Your task to perform on an android device: Open Wikipedia Image 0: 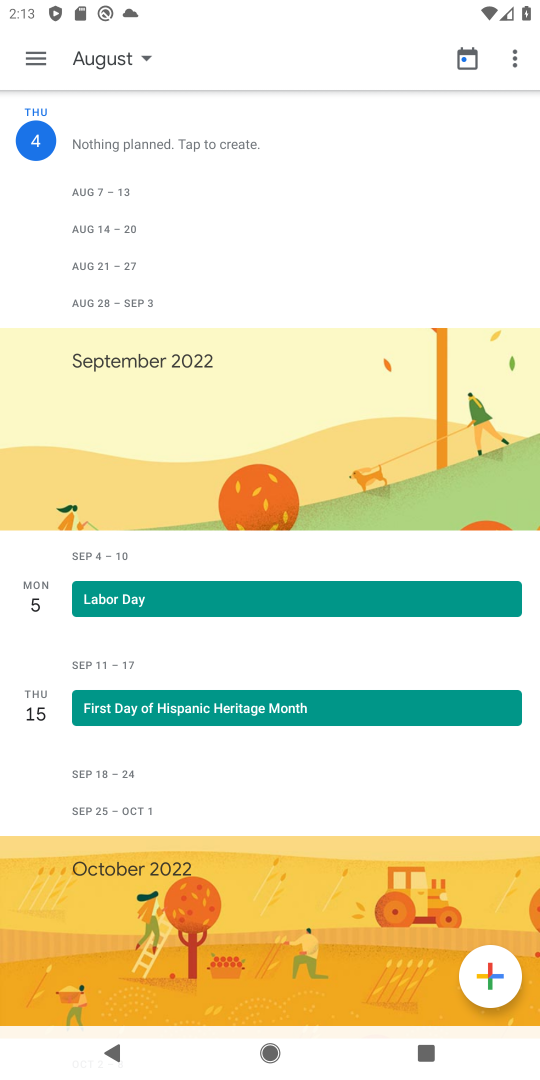
Step 0: press home button
Your task to perform on an android device: Open Wikipedia Image 1: 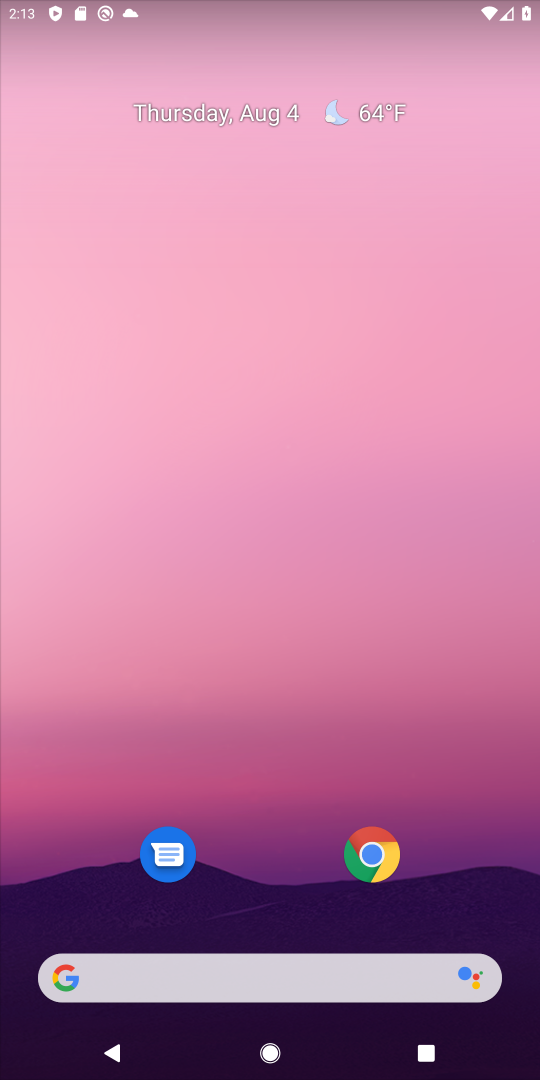
Step 1: click (400, 996)
Your task to perform on an android device: Open Wikipedia Image 2: 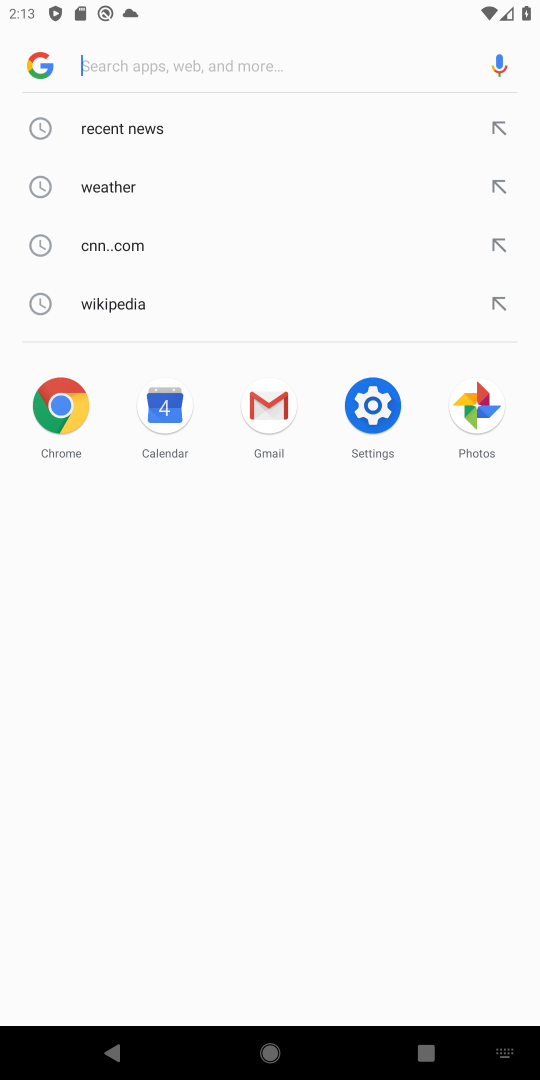
Step 2: type "Open Wikipedia"
Your task to perform on an android device: Open Wikipedia Image 3: 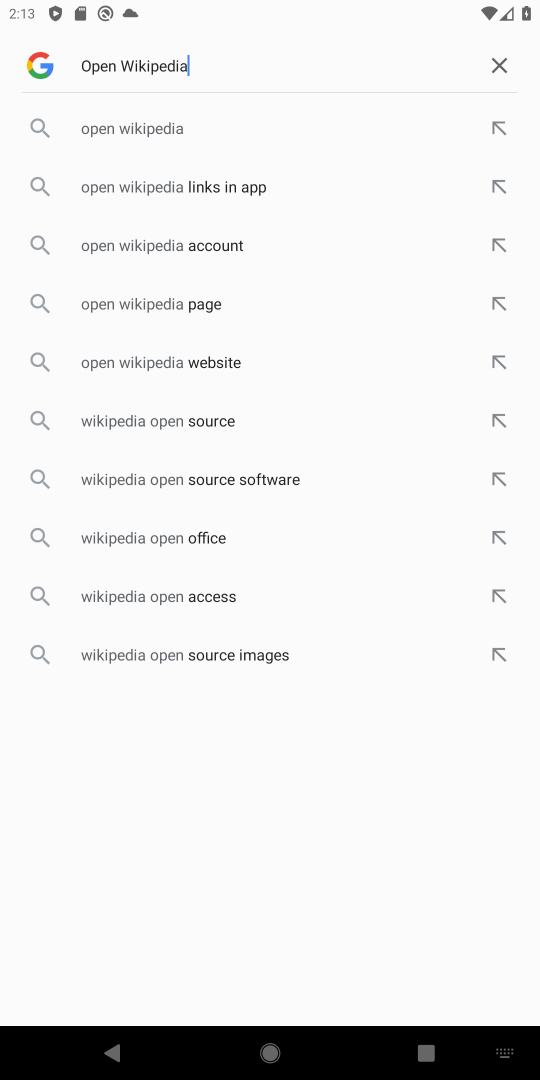
Step 3: press enter
Your task to perform on an android device: Open Wikipedia Image 4: 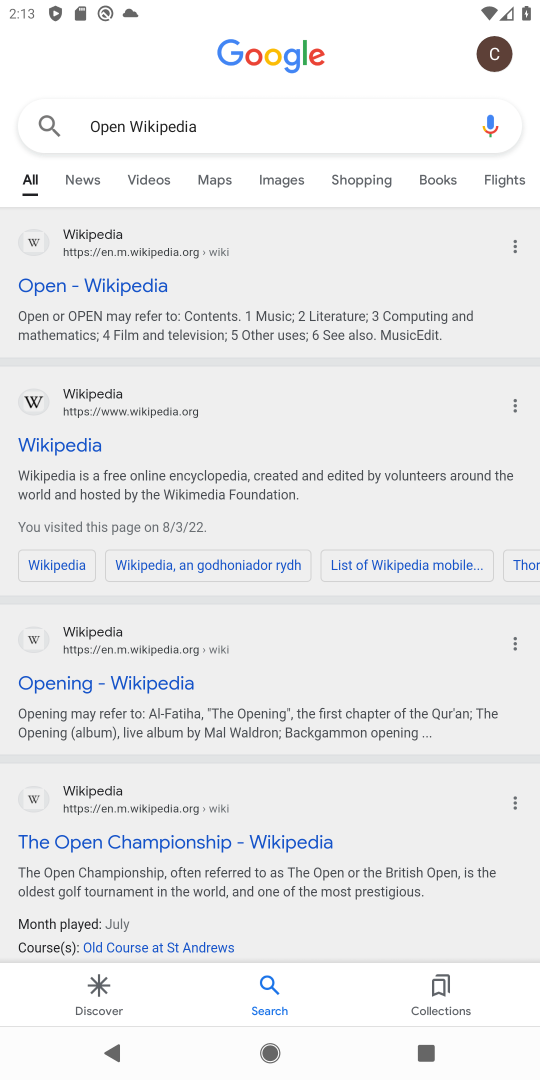
Step 4: click (105, 294)
Your task to perform on an android device: Open Wikipedia Image 5: 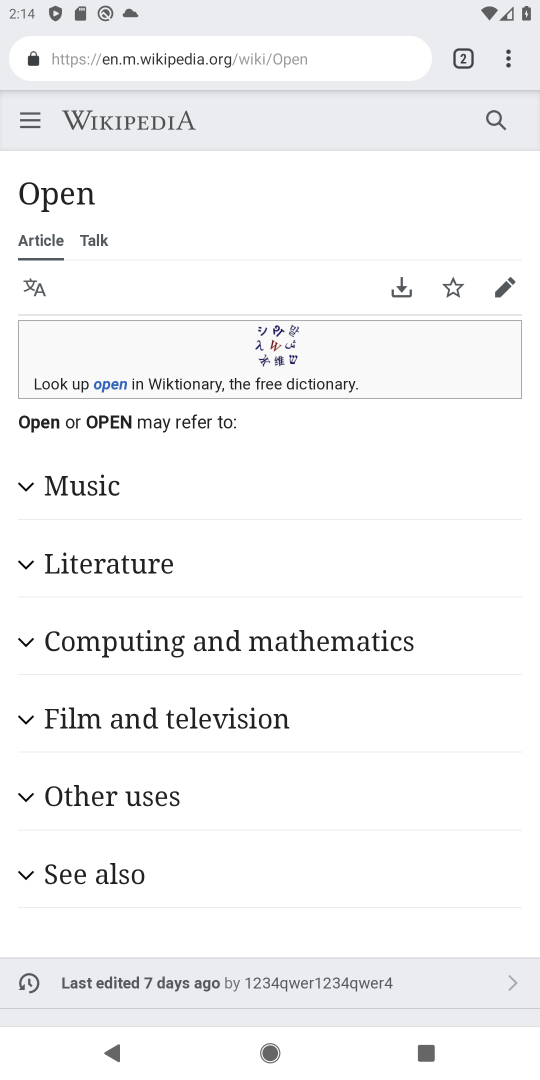
Step 5: task complete